Your task to perform on an android device: Open the phone app and click the voicemail tab. Image 0: 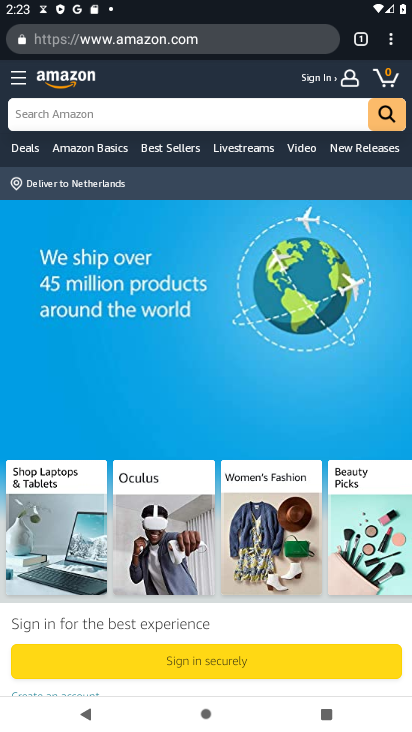
Step 0: drag from (207, 621) to (186, 145)
Your task to perform on an android device: Open the phone app and click the voicemail tab. Image 1: 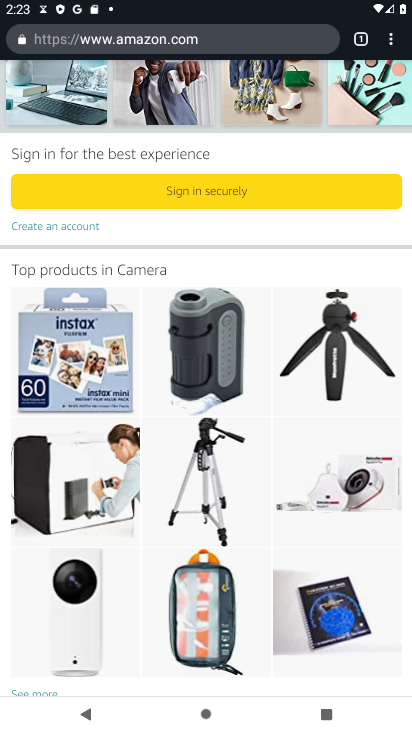
Step 1: press home button
Your task to perform on an android device: Open the phone app and click the voicemail tab. Image 2: 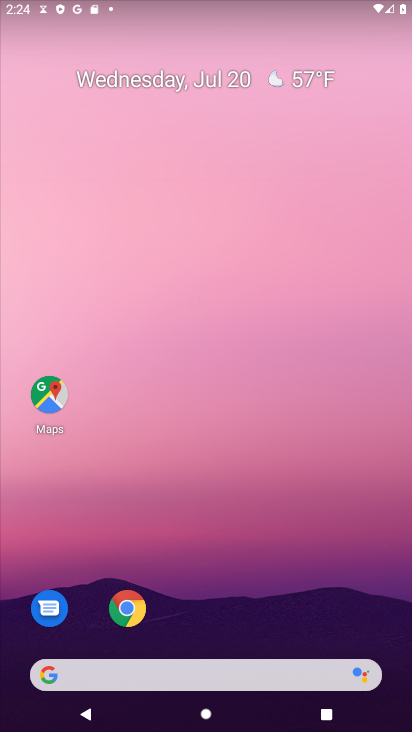
Step 2: drag from (195, 579) to (181, 105)
Your task to perform on an android device: Open the phone app and click the voicemail tab. Image 3: 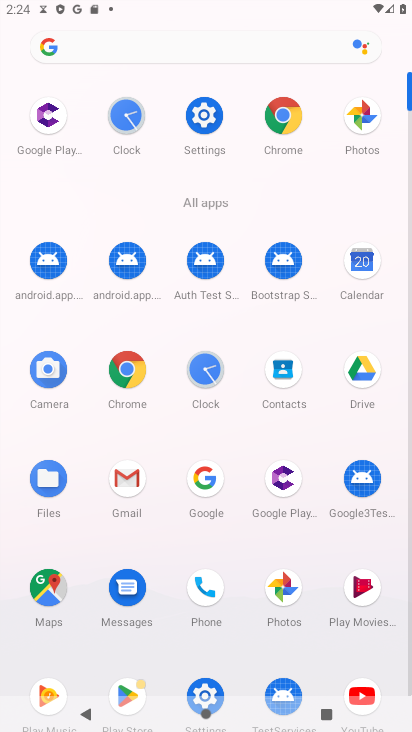
Step 3: click (196, 587)
Your task to perform on an android device: Open the phone app and click the voicemail tab. Image 4: 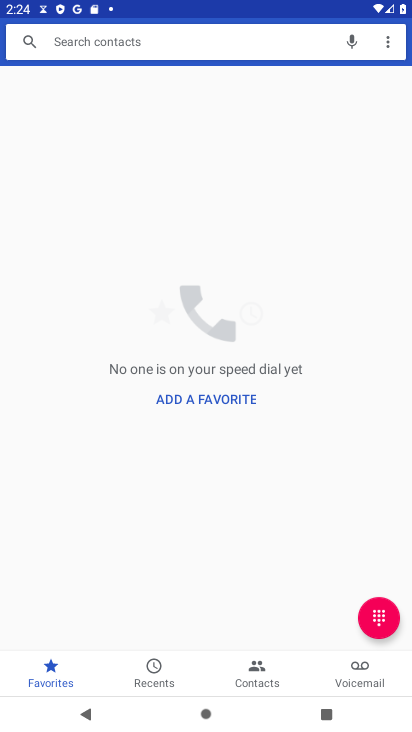
Step 4: click (354, 673)
Your task to perform on an android device: Open the phone app and click the voicemail tab. Image 5: 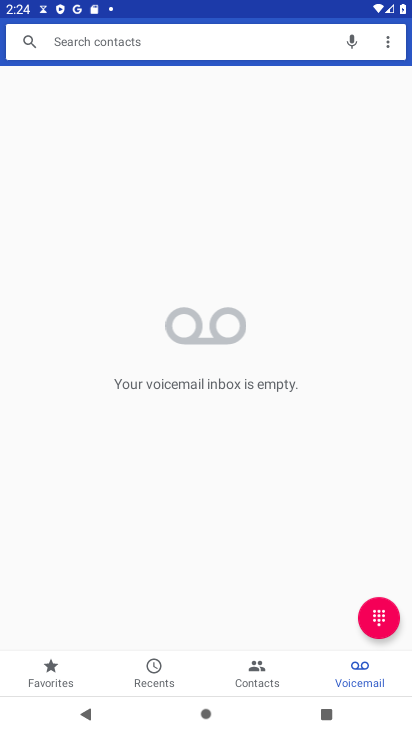
Step 5: task complete